Your task to perform on an android device: see tabs open on other devices in the chrome app Image 0: 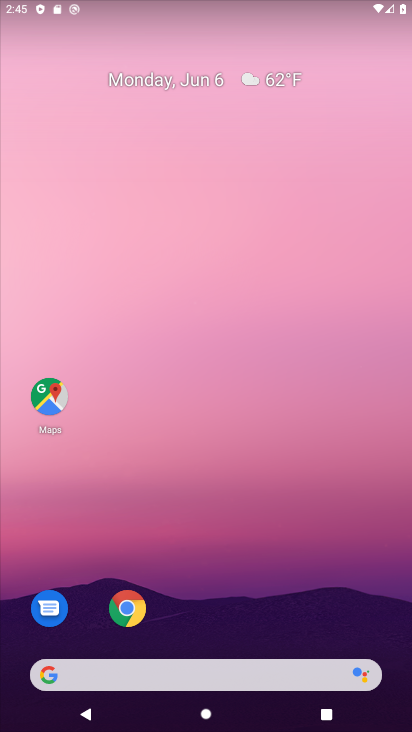
Step 0: click (132, 614)
Your task to perform on an android device: see tabs open on other devices in the chrome app Image 1: 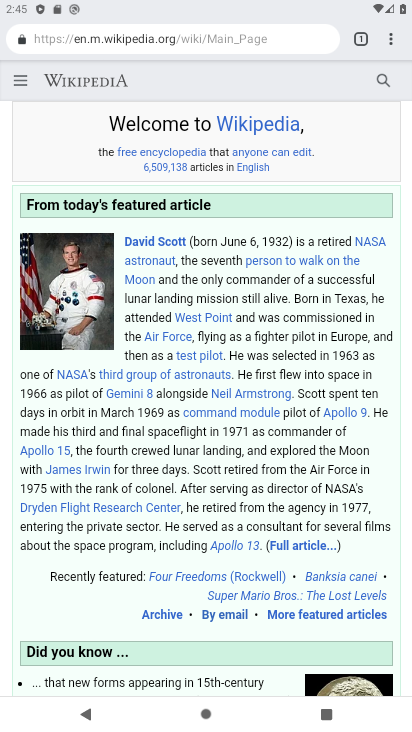
Step 1: click (383, 45)
Your task to perform on an android device: see tabs open on other devices in the chrome app Image 2: 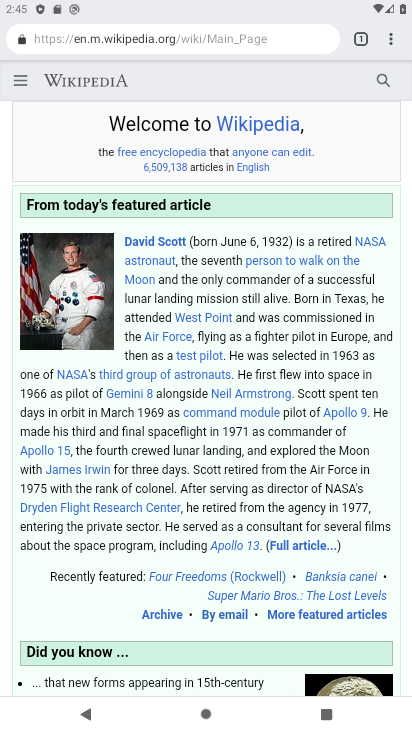
Step 2: click (402, 26)
Your task to perform on an android device: see tabs open on other devices in the chrome app Image 3: 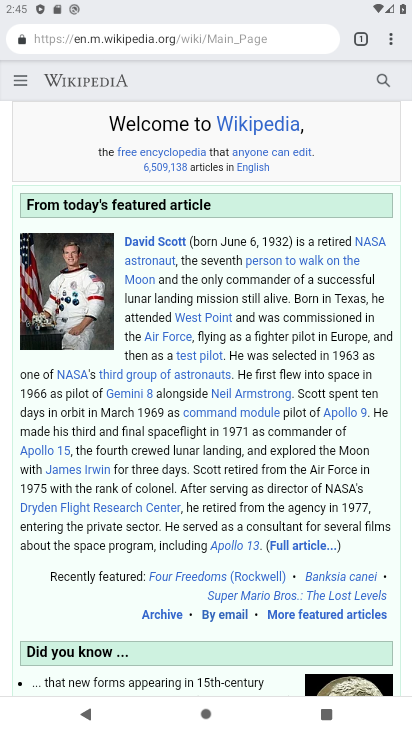
Step 3: click (388, 45)
Your task to perform on an android device: see tabs open on other devices in the chrome app Image 4: 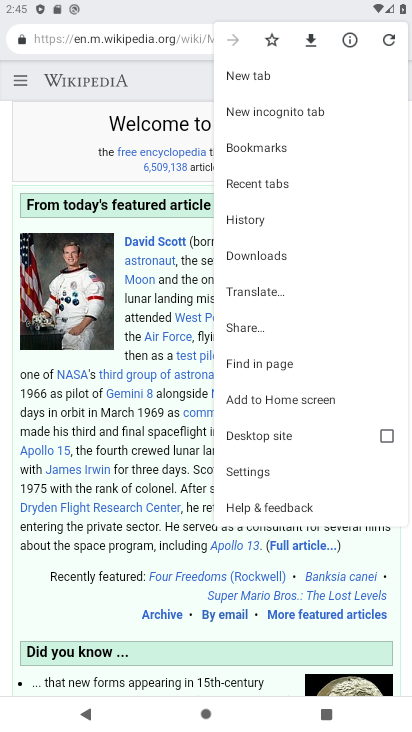
Step 4: click (255, 177)
Your task to perform on an android device: see tabs open on other devices in the chrome app Image 5: 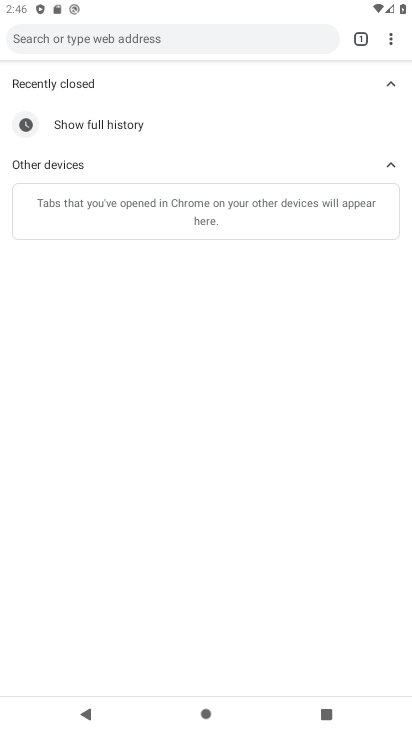
Step 5: task complete